Your task to perform on an android device: Search for sushi restaurants on Maps Image 0: 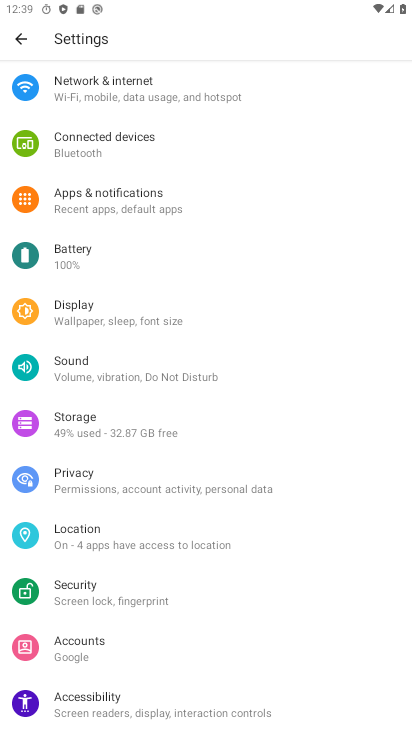
Step 0: drag from (234, 649) to (283, 271)
Your task to perform on an android device: Search for sushi restaurants on Maps Image 1: 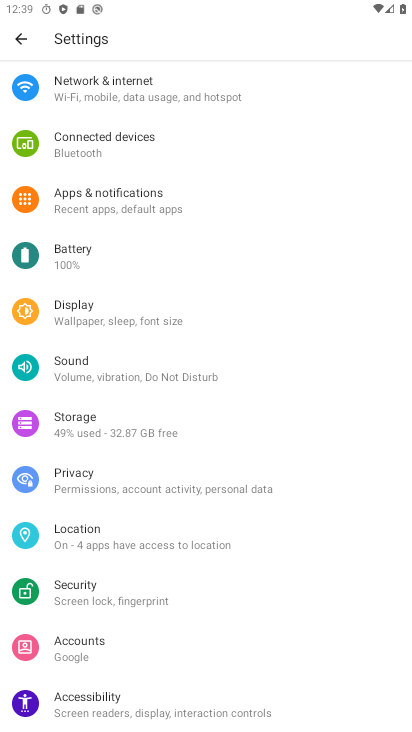
Step 1: drag from (254, 190) to (327, 730)
Your task to perform on an android device: Search for sushi restaurants on Maps Image 2: 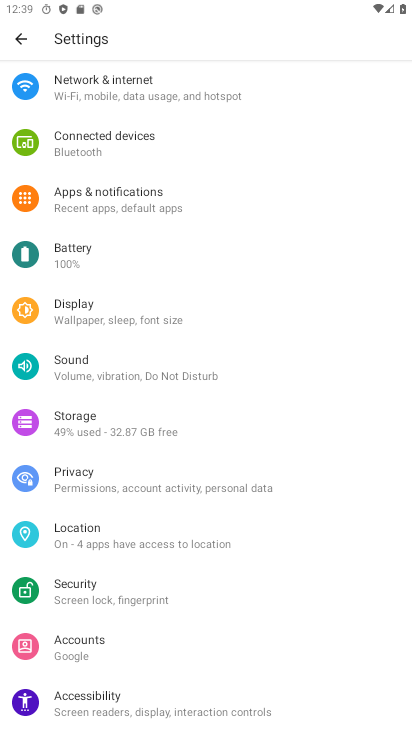
Step 2: press home button
Your task to perform on an android device: Search for sushi restaurants on Maps Image 3: 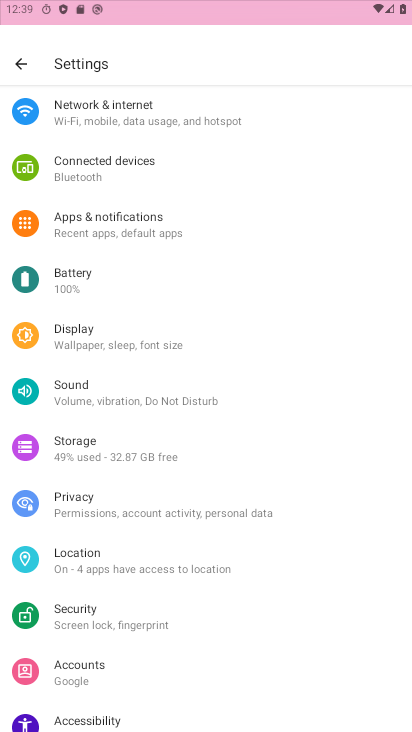
Step 3: drag from (193, 548) to (229, 157)
Your task to perform on an android device: Search for sushi restaurants on Maps Image 4: 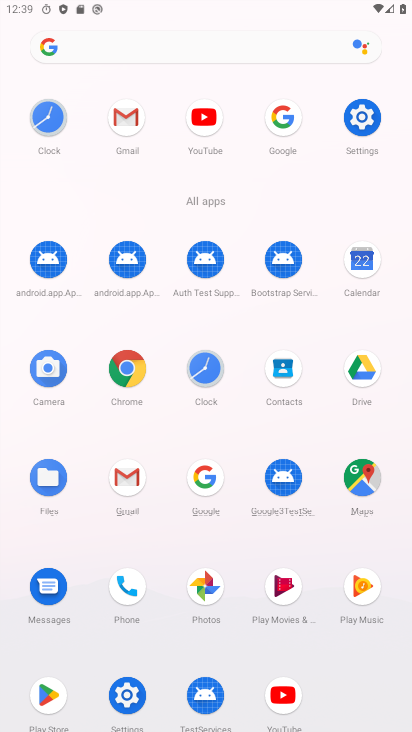
Step 4: click (362, 466)
Your task to perform on an android device: Search for sushi restaurants on Maps Image 5: 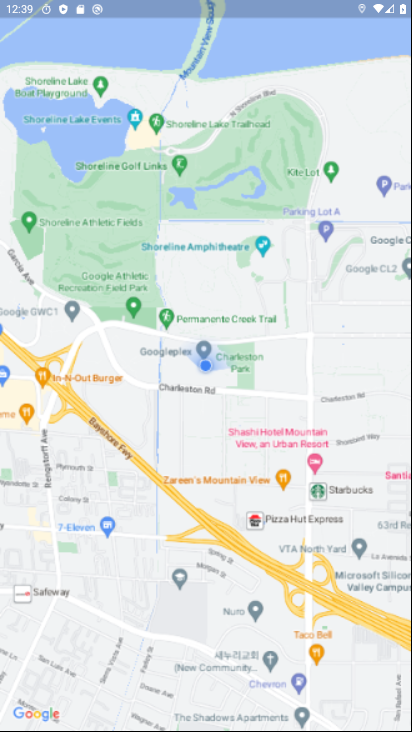
Step 5: drag from (256, 112) to (313, 721)
Your task to perform on an android device: Search for sushi restaurants on Maps Image 6: 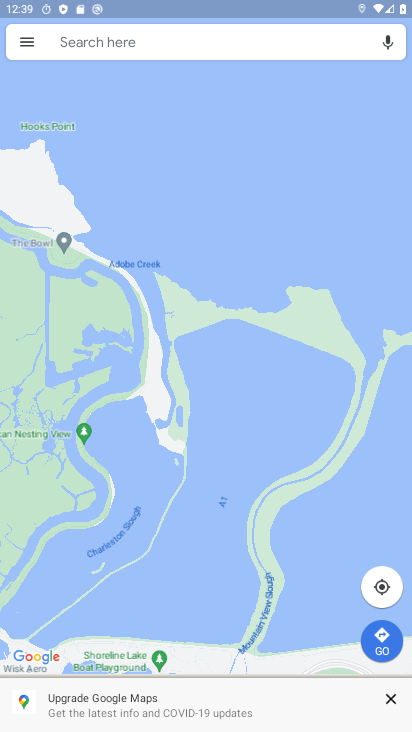
Step 6: click (133, 18)
Your task to perform on an android device: Search for sushi restaurants on Maps Image 7: 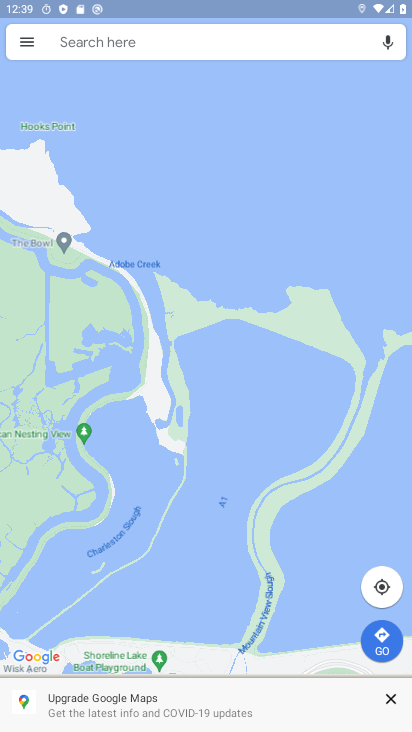
Step 7: click (111, 41)
Your task to perform on an android device: Search for sushi restaurants on Maps Image 8: 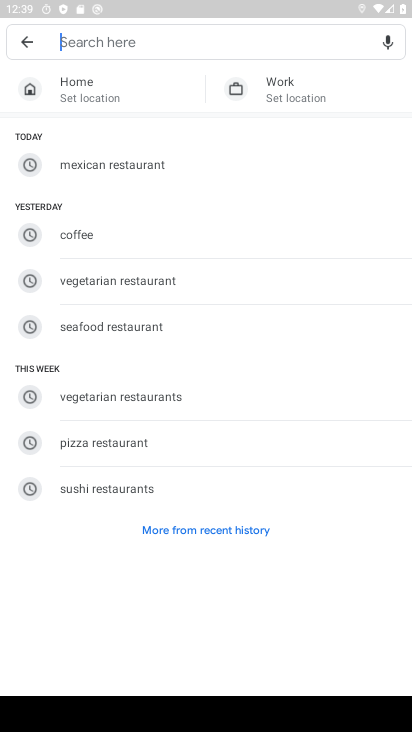
Step 8: click (118, 492)
Your task to perform on an android device: Search for sushi restaurants on Maps Image 9: 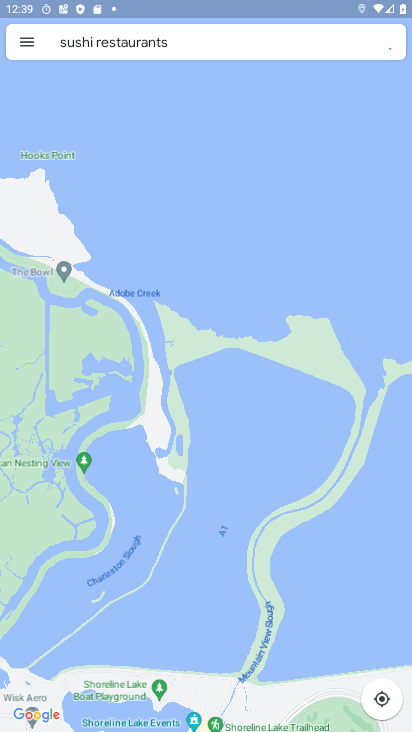
Step 9: task complete